Your task to perform on an android device: Open Google Chrome and open the bookmarks view Image 0: 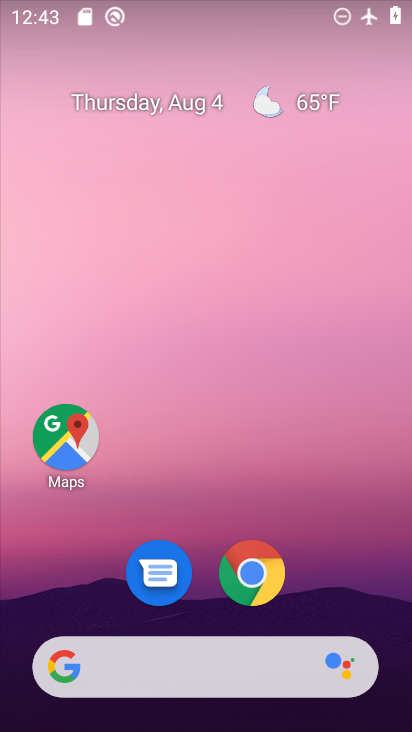
Step 0: drag from (368, 573) to (361, 183)
Your task to perform on an android device: Open Google Chrome and open the bookmarks view Image 1: 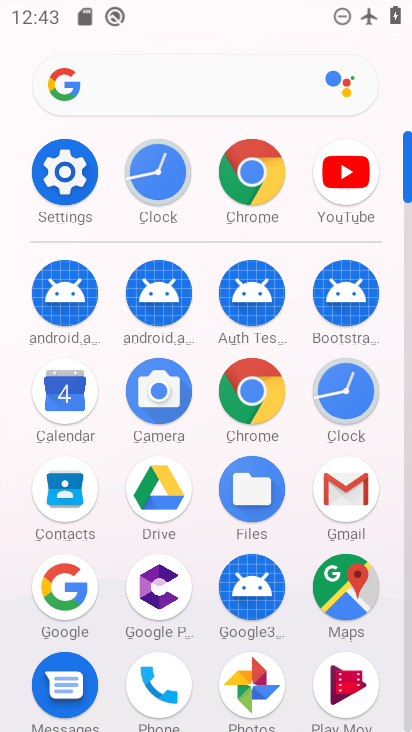
Step 1: click (253, 387)
Your task to perform on an android device: Open Google Chrome and open the bookmarks view Image 2: 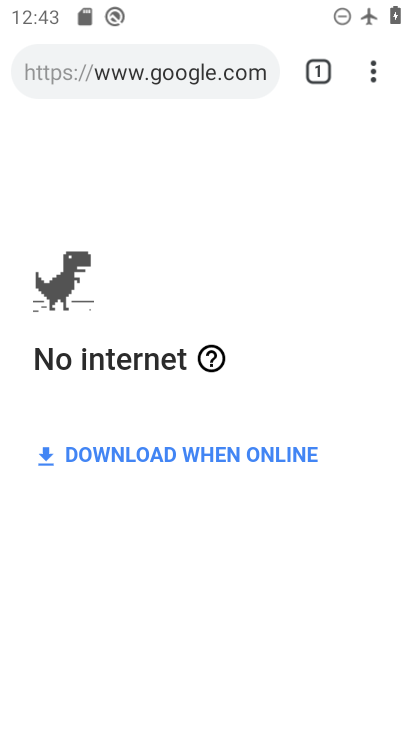
Step 2: task complete